Your task to perform on an android device: set default search engine in the chrome app Image 0: 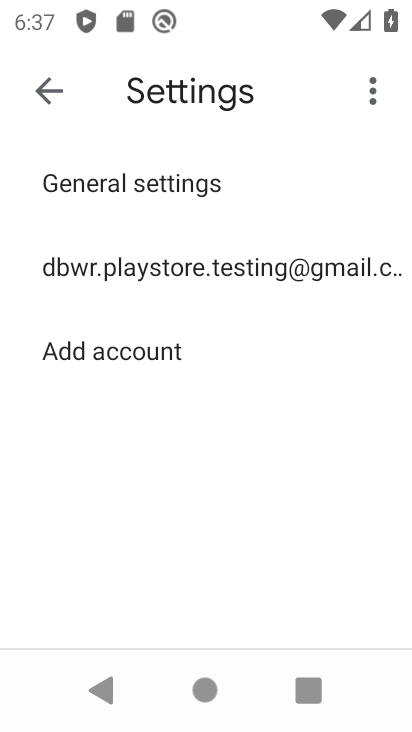
Step 0: press home button
Your task to perform on an android device: set default search engine in the chrome app Image 1: 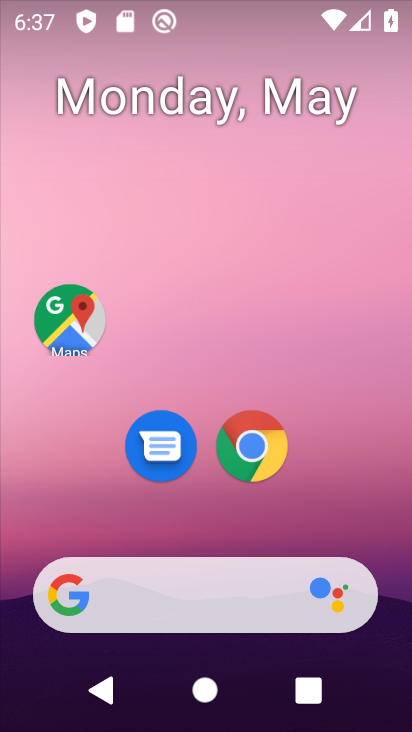
Step 1: click (251, 439)
Your task to perform on an android device: set default search engine in the chrome app Image 2: 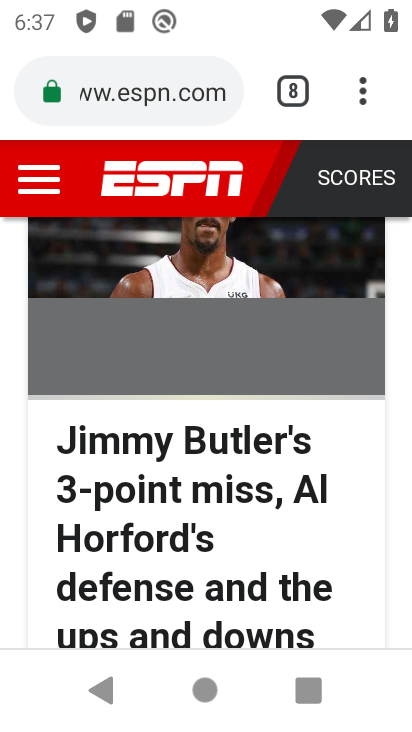
Step 2: click (356, 88)
Your task to perform on an android device: set default search engine in the chrome app Image 3: 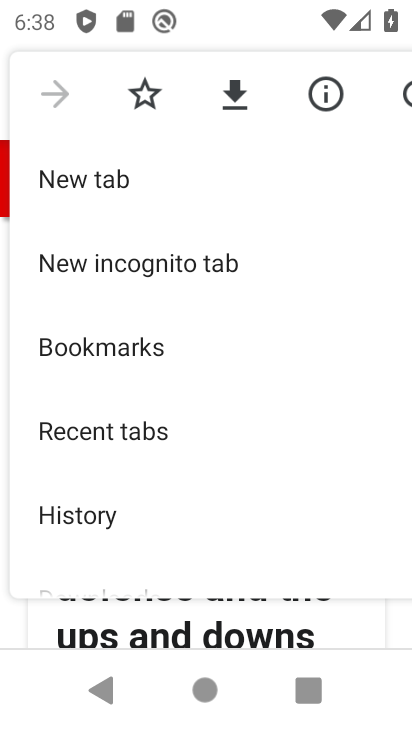
Step 3: drag from (202, 480) to (164, 185)
Your task to perform on an android device: set default search engine in the chrome app Image 4: 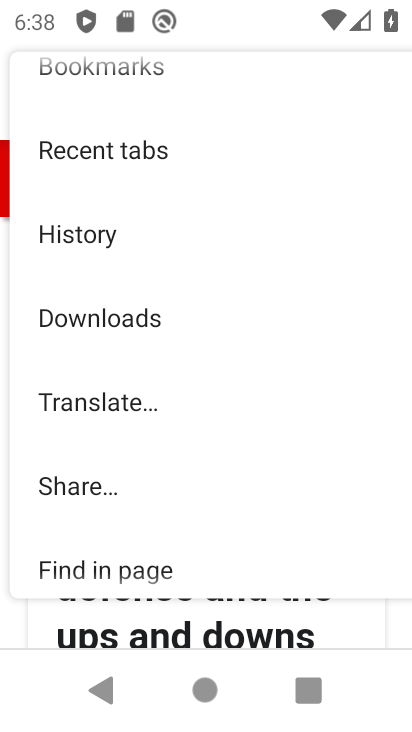
Step 4: drag from (191, 430) to (188, 161)
Your task to perform on an android device: set default search engine in the chrome app Image 5: 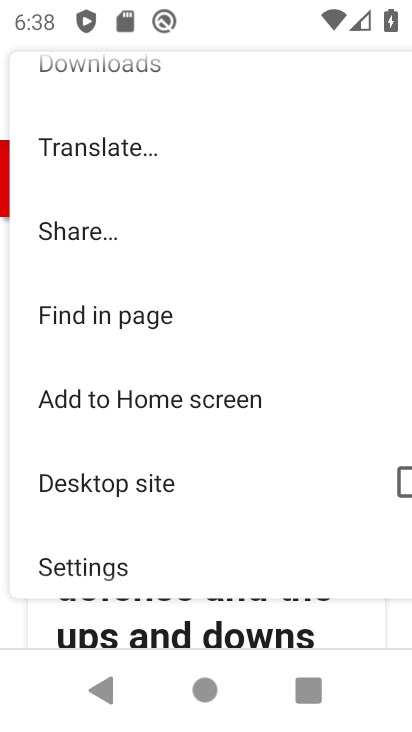
Step 5: click (89, 556)
Your task to perform on an android device: set default search engine in the chrome app Image 6: 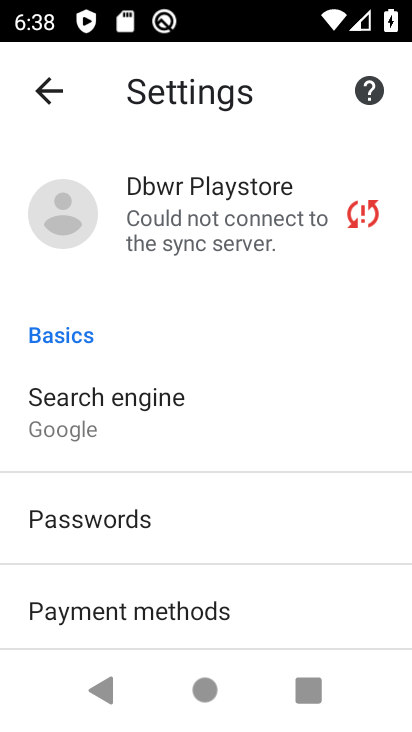
Step 6: click (91, 400)
Your task to perform on an android device: set default search engine in the chrome app Image 7: 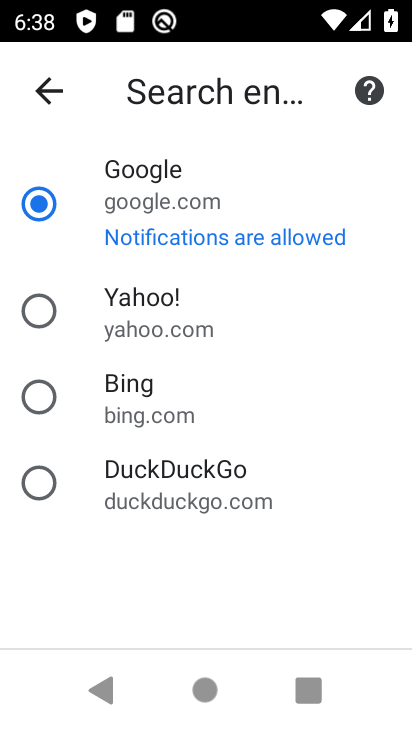
Step 7: click (42, 207)
Your task to perform on an android device: set default search engine in the chrome app Image 8: 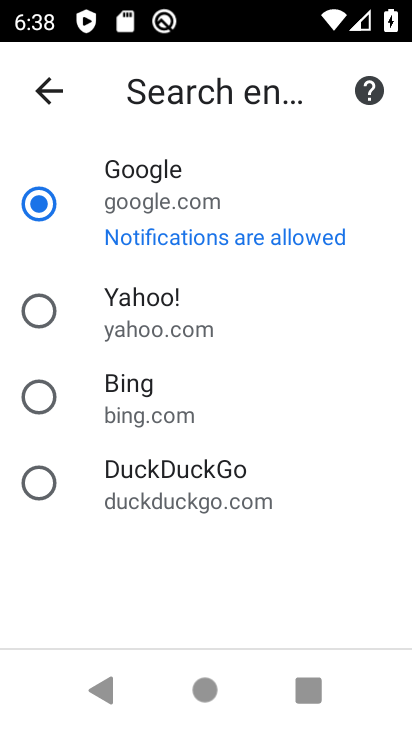
Step 8: task complete